Your task to perform on an android device: Go to wifi settings Image 0: 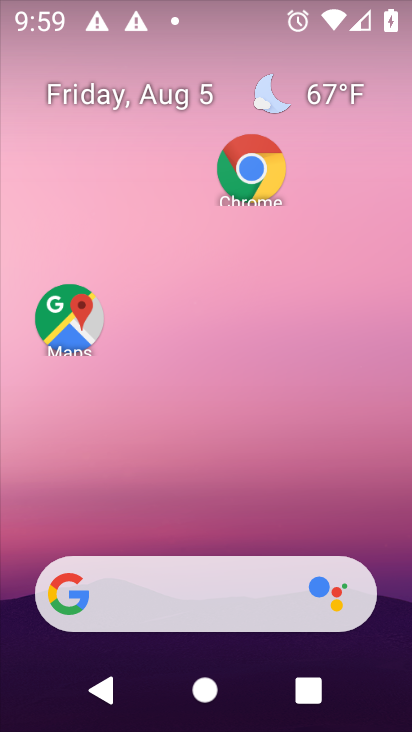
Step 0: drag from (185, 522) to (182, 100)
Your task to perform on an android device: Go to wifi settings Image 1: 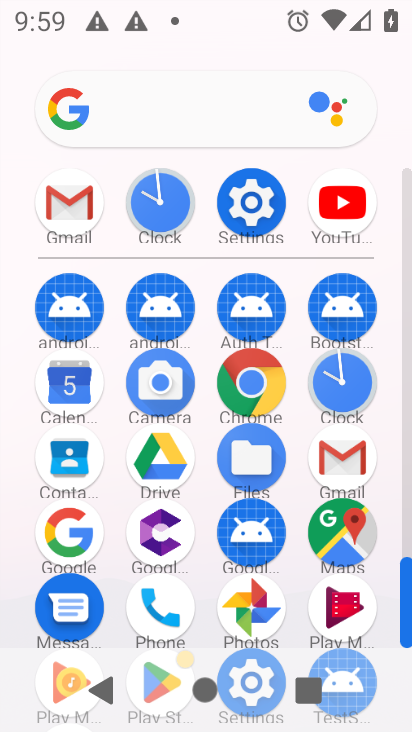
Step 1: click (250, 173)
Your task to perform on an android device: Go to wifi settings Image 2: 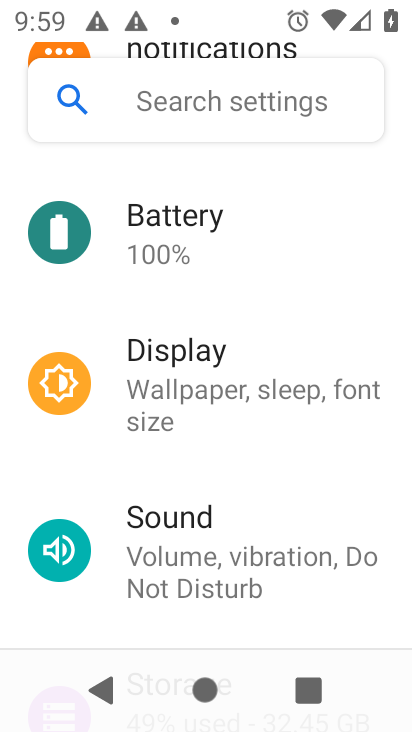
Step 2: drag from (250, 173) to (236, 552)
Your task to perform on an android device: Go to wifi settings Image 3: 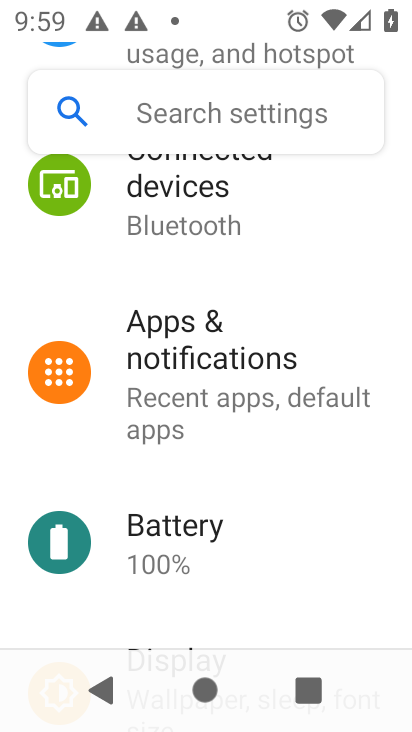
Step 3: drag from (242, 244) to (243, 597)
Your task to perform on an android device: Go to wifi settings Image 4: 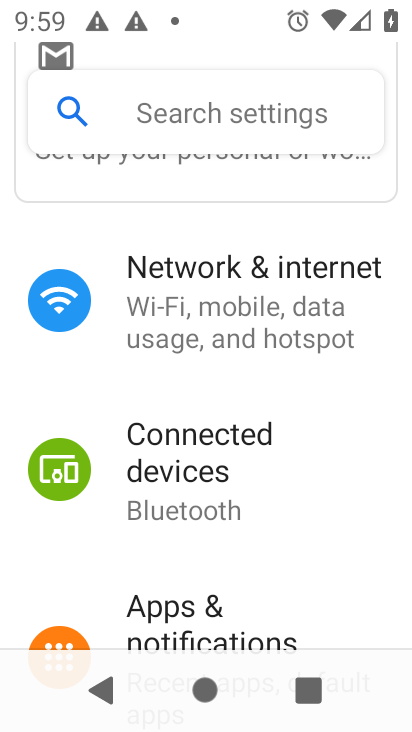
Step 4: drag from (208, 276) to (208, 569)
Your task to perform on an android device: Go to wifi settings Image 5: 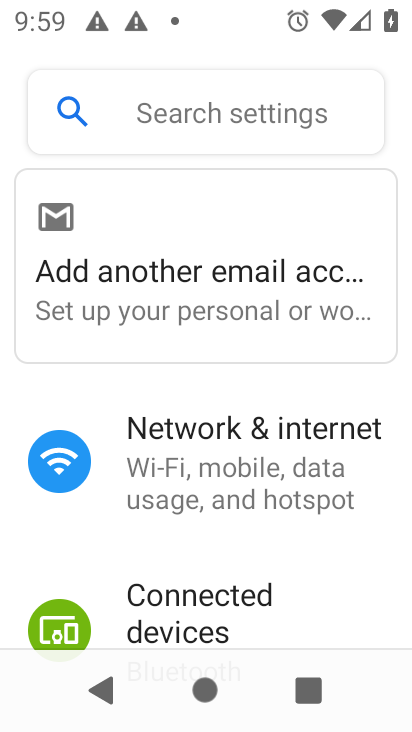
Step 5: click (208, 438)
Your task to perform on an android device: Go to wifi settings Image 6: 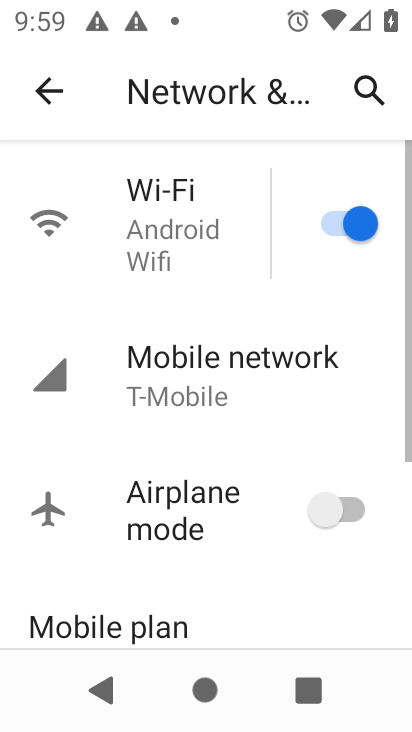
Step 6: click (197, 203)
Your task to perform on an android device: Go to wifi settings Image 7: 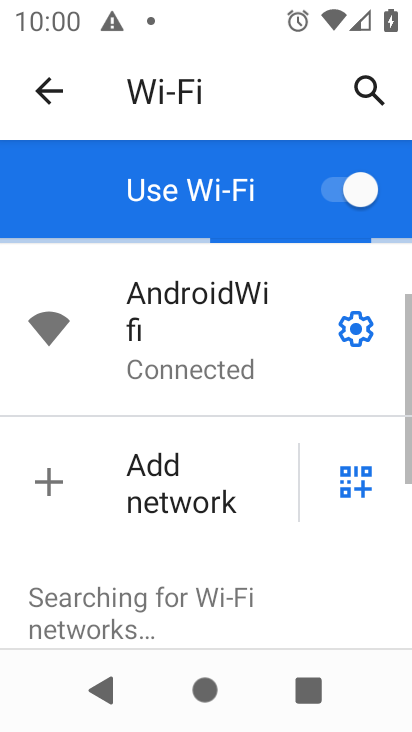
Step 7: task complete